Your task to perform on an android device: Open Android settings Image 0: 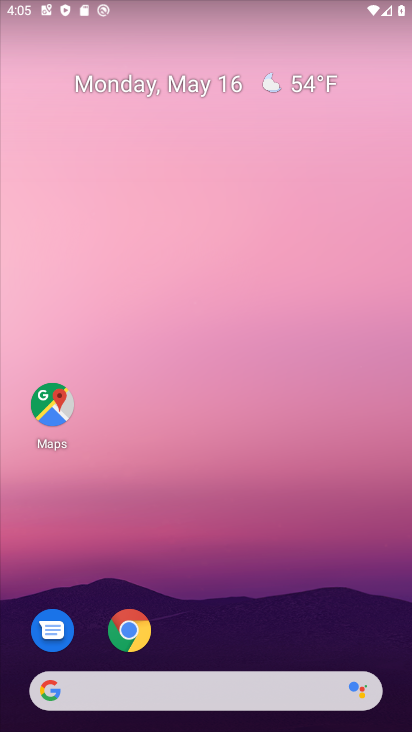
Step 0: drag from (248, 636) to (224, 205)
Your task to perform on an android device: Open Android settings Image 1: 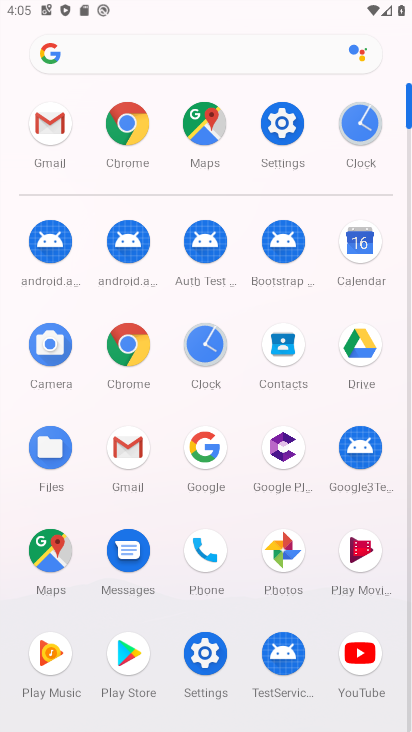
Step 1: click (273, 129)
Your task to perform on an android device: Open Android settings Image 2: 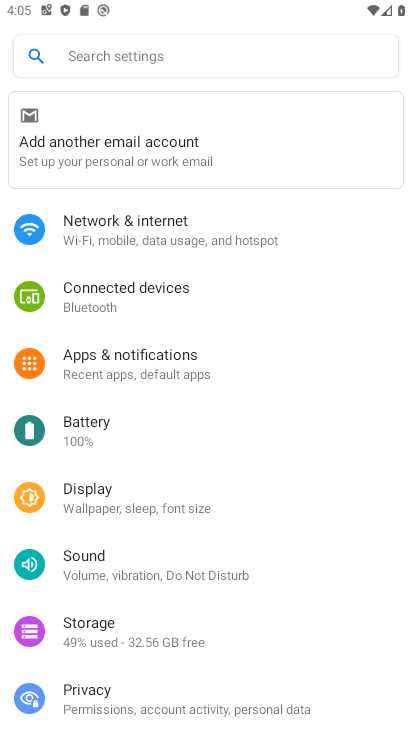
Step 2: task complete